Your task to perform on an android device: Open CNN.com Image 0: 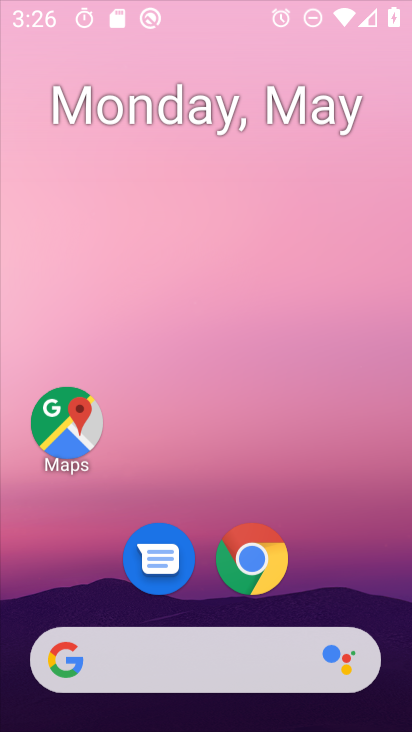
Step 0: click (325, 199)
Your task to perform on an android device: Open CNN.com Image 1: 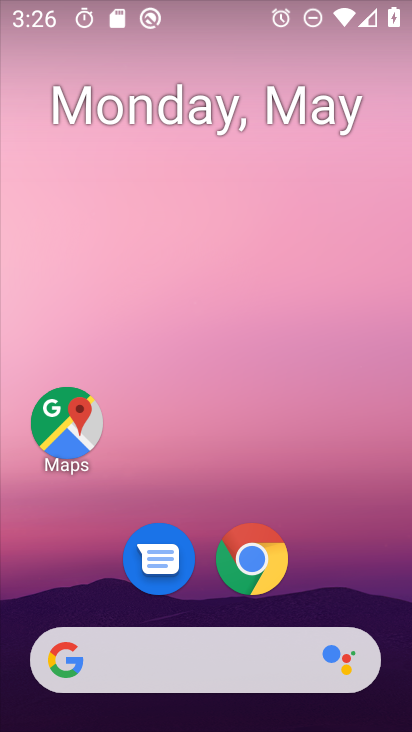
Step 1: drag from (204, 590) to (299, 149)
Your task to perform on an android device: Open CNN.com Image 2: 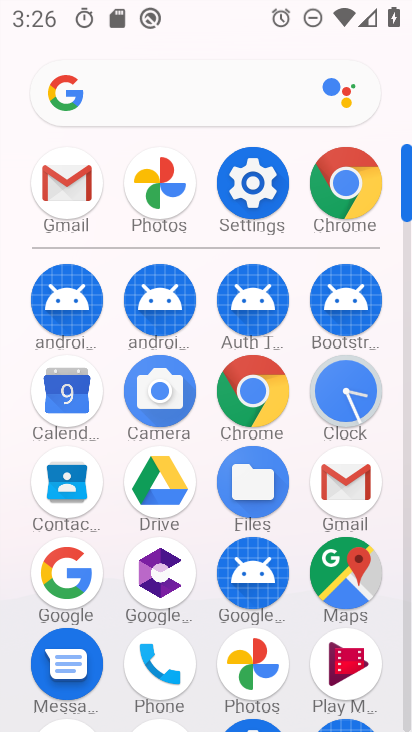
Step 2: click (208, 113)
Your task to perform on an android device: Open CNN.com Image 3: 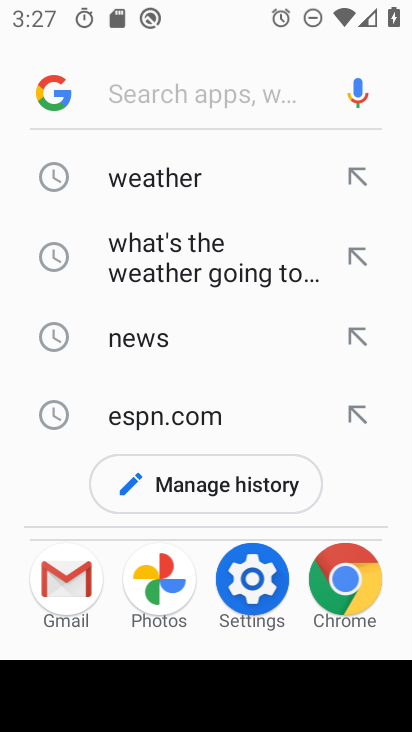
Step 3: drag from (245, 419) to (317, 118)
Your task to perform on an android device: Open CNN.com Image 4: 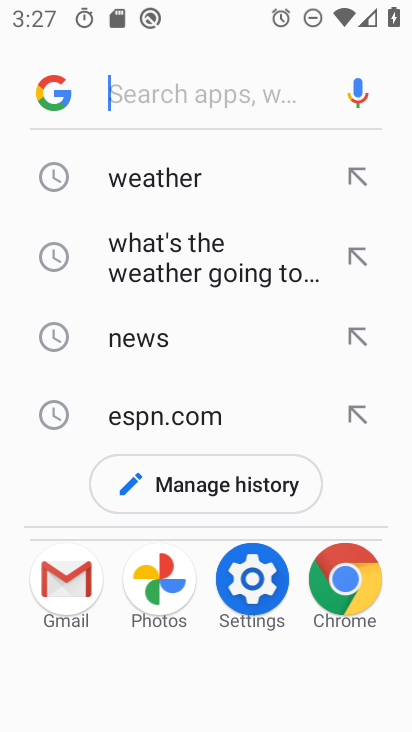
Step 4: type "cnn.com"
Your task to perform on an android device: Open CNN.com Image 5: 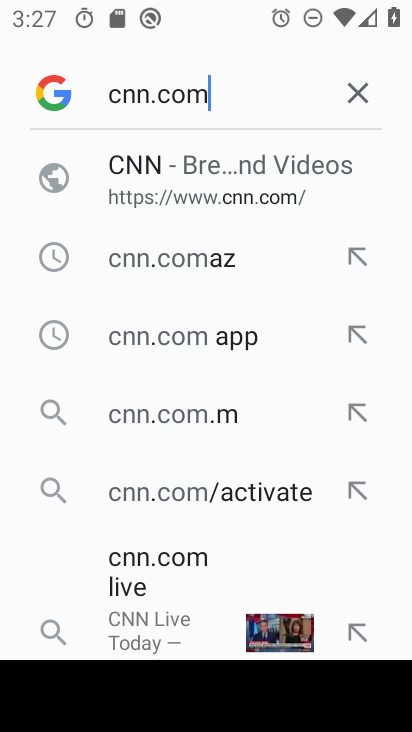
Step 5: click (177, 207)
Your task to perform on an android device: Open CNN.com Image 6: 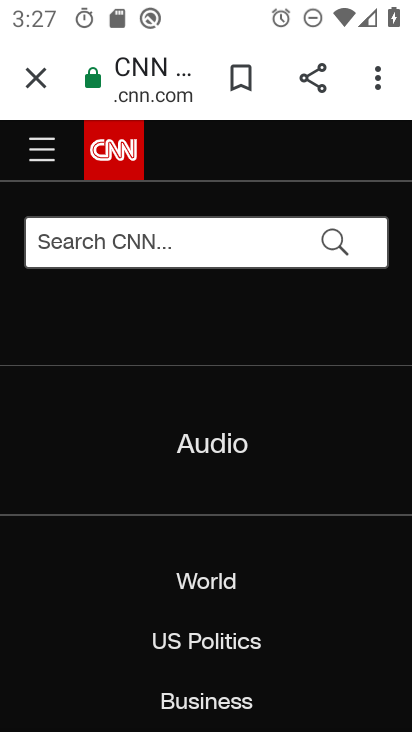
Step 6: task complete